Your task to perform on an android device: toggle pop-ups in chrome Image 0: 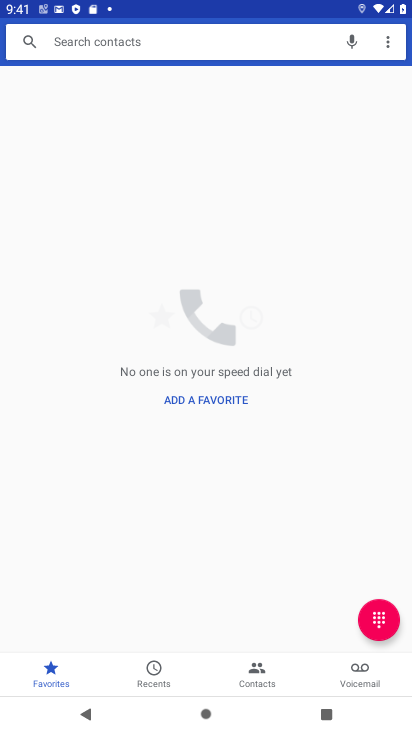
Step 0: press home button
Your task to perform on an android device: toggle pop-ups in chrome Image 1: 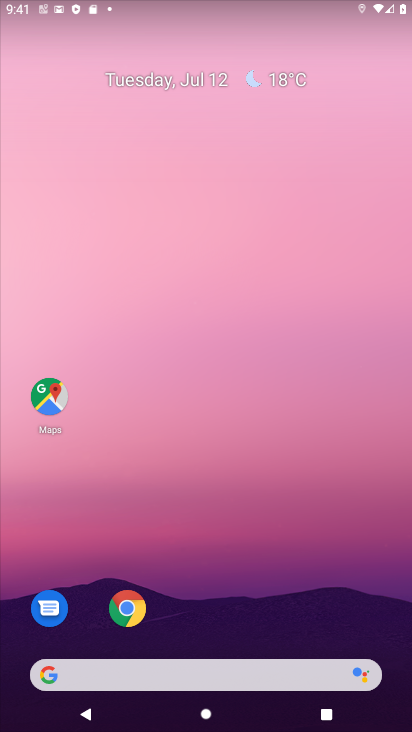
Step 1: click (126, 612)
Your task to perform on an android device: toggle pop-ups in chrome Image 2: 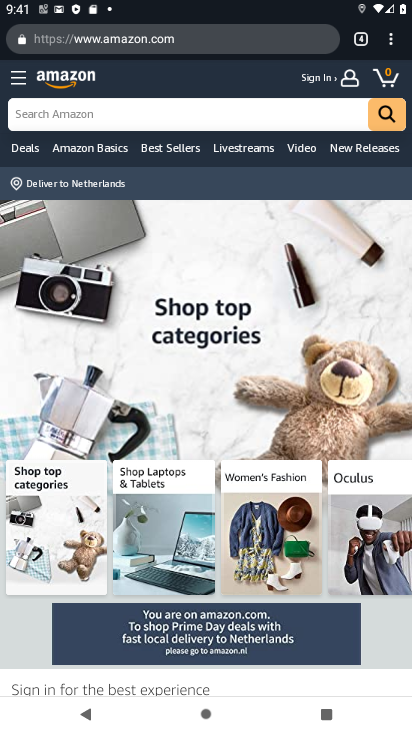
Step 2: click (396, 39)
Your task to perform on an android device: toggle pop-ups in chrome Image 3: 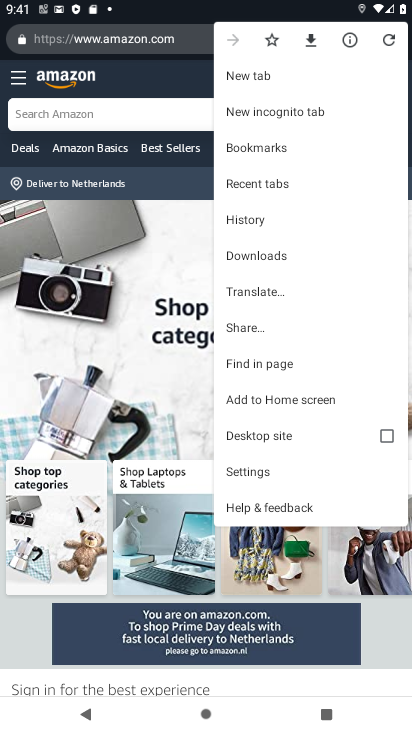
Step 3: click (260, 472)
Your task to perform on an android device: toggle pop-ups in chrome Image 4: 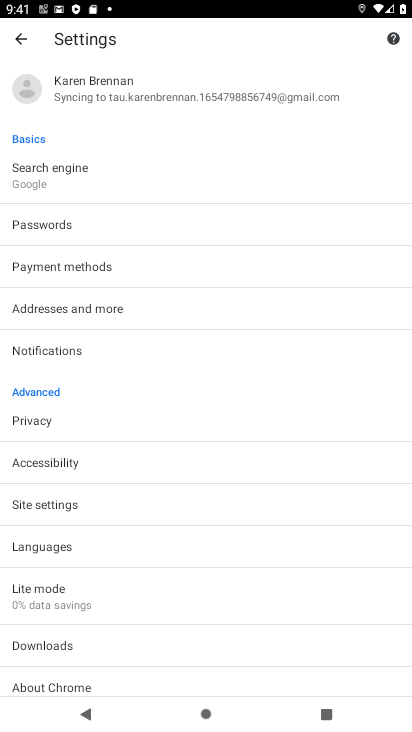
Step 4: click (44, 506)
Your task to perform on an android device: toggle pop-ups in chrome Image 5: 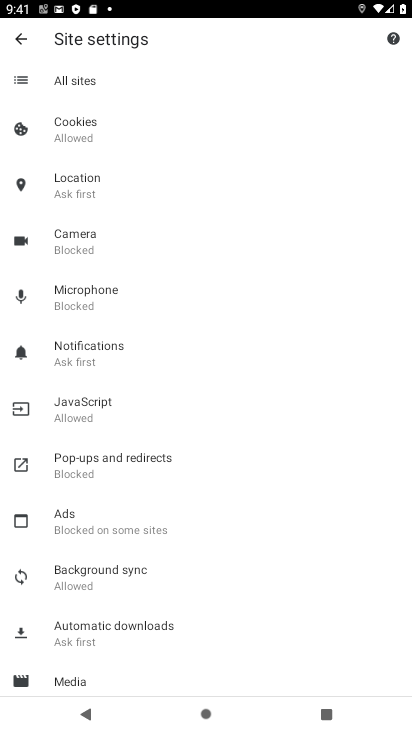
Step 5: click (84, 462)
Your task to perform on an android device: toggle pop-ups in chrome Image 6: 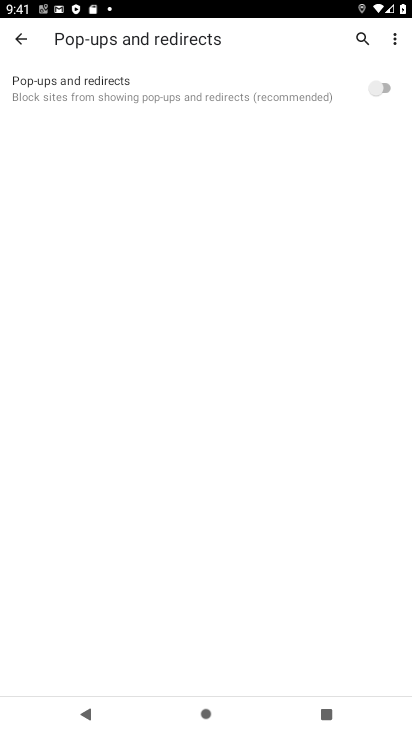
Step 6: click (383, 79)
Your task to perform on an android device: toggle pop-ups in chrome Image 7: 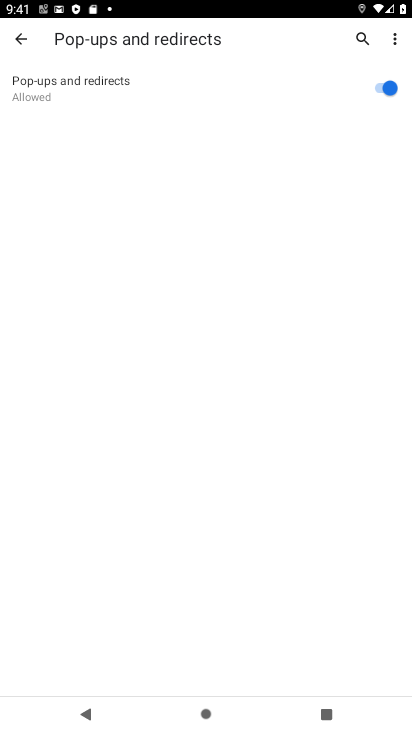
Step 7: task complete